Your task to perform on an android device: open a bookmark in the chrome app Image 0: 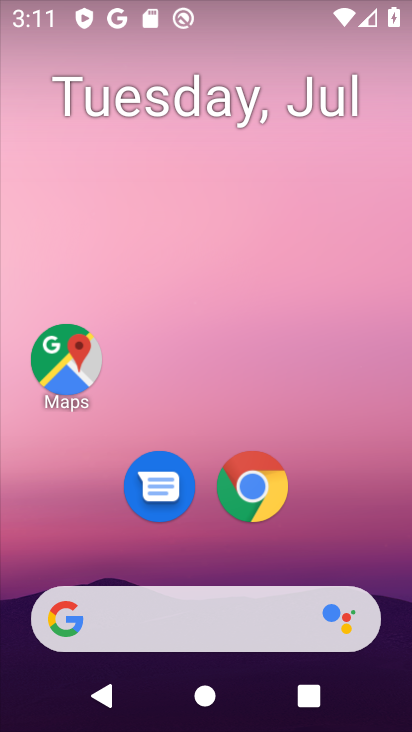
Step 0: click (256, 489)
Your task to perform on an android device: open a bookmark in the chrome app Image 1: 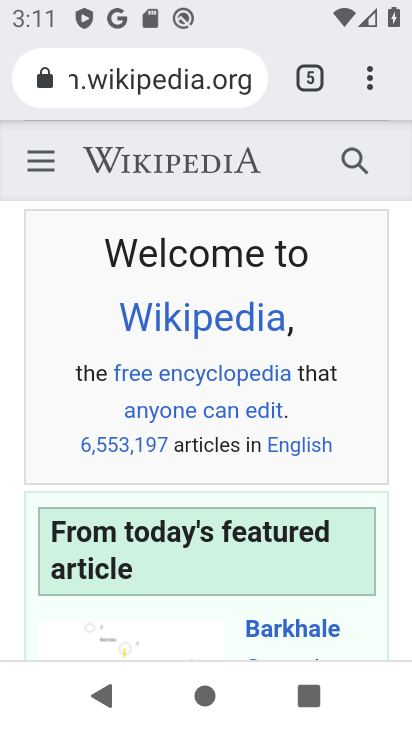
Step 1: drag from (366, 86) to (112, 389)
Your task to perform on an android device: open a bookmark in the chrome app Image 2: 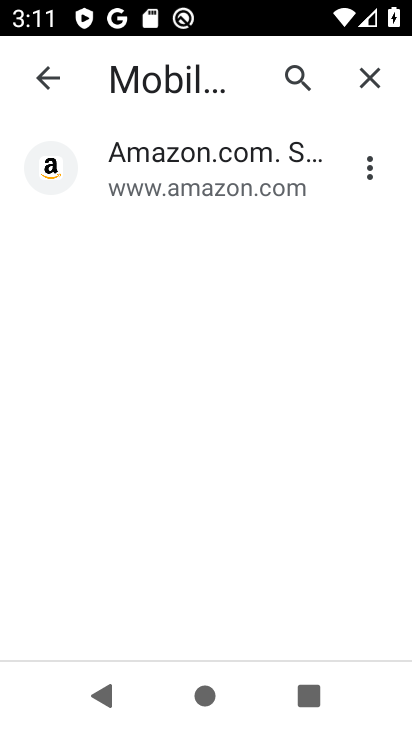
Step 2: click (228, 167)
Your task to perform on an android device: open a bookmark in the chrome app Image 3: 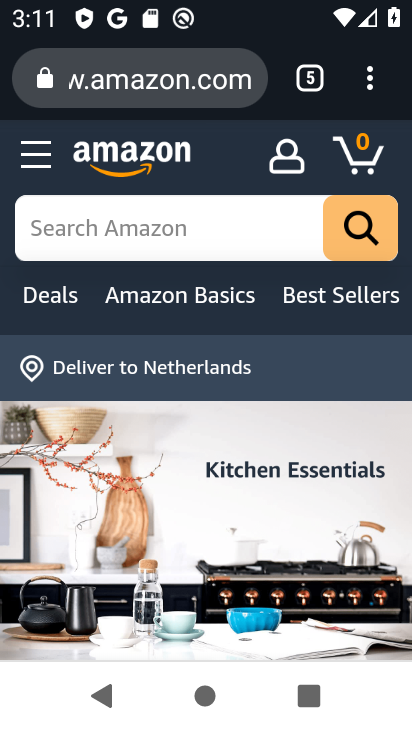
Step 3: task complete